Your task to perform on an android device: open chrome privacy settings Image 0: 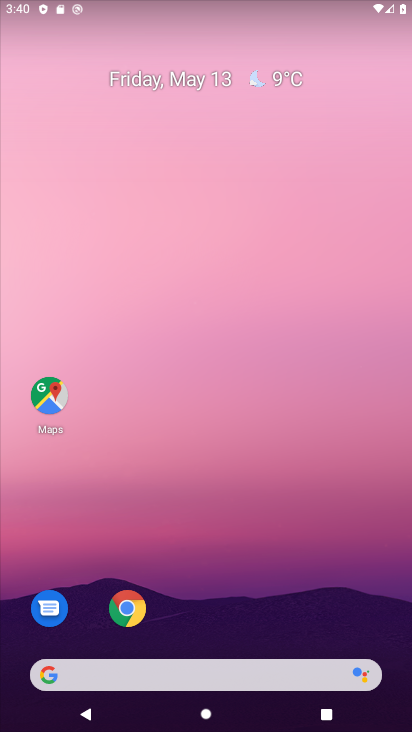
Step 0: drag from (173, 641) to (279, 299)
Your task to perform on an android device: open chrome privacy settings Image 1: 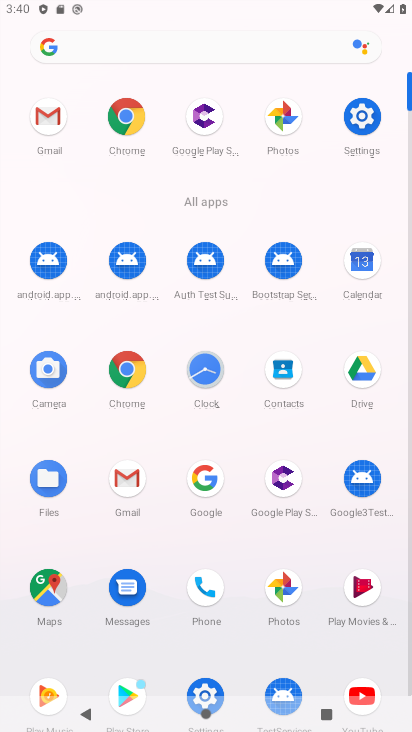
Step 1: click (344, 115)
Your task to perform on an android device: open chrome privacy settings Image 2: 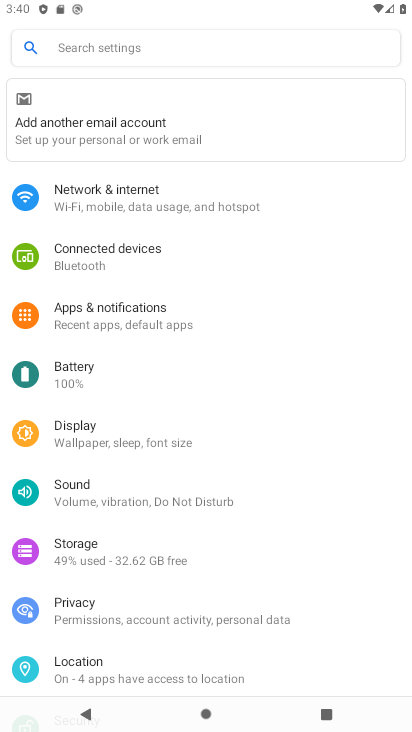
Step 2: click (118, 630)
Your task to perform on an android device: open chrome privacy settings Image 3: 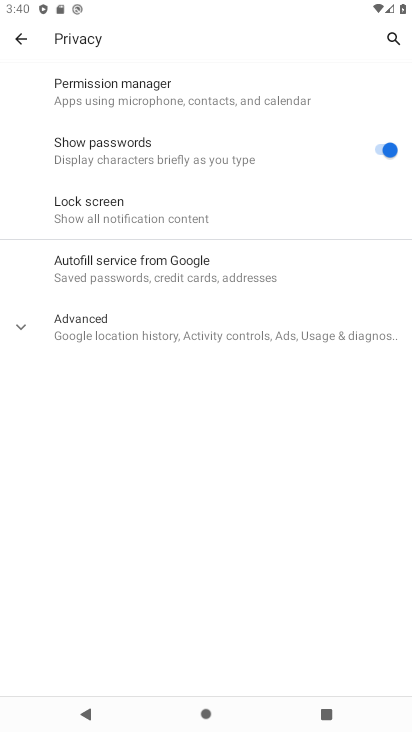
Step 3: click (145, 326)
Your task to perform on an android device: open chrome privacy settings Image 4: 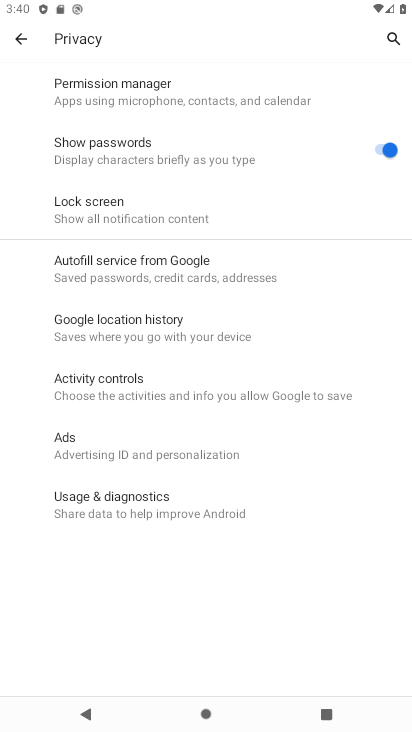
Step 4: task complete